Your task to perform on an android device: turn off data saver in the chrome app Image 0: 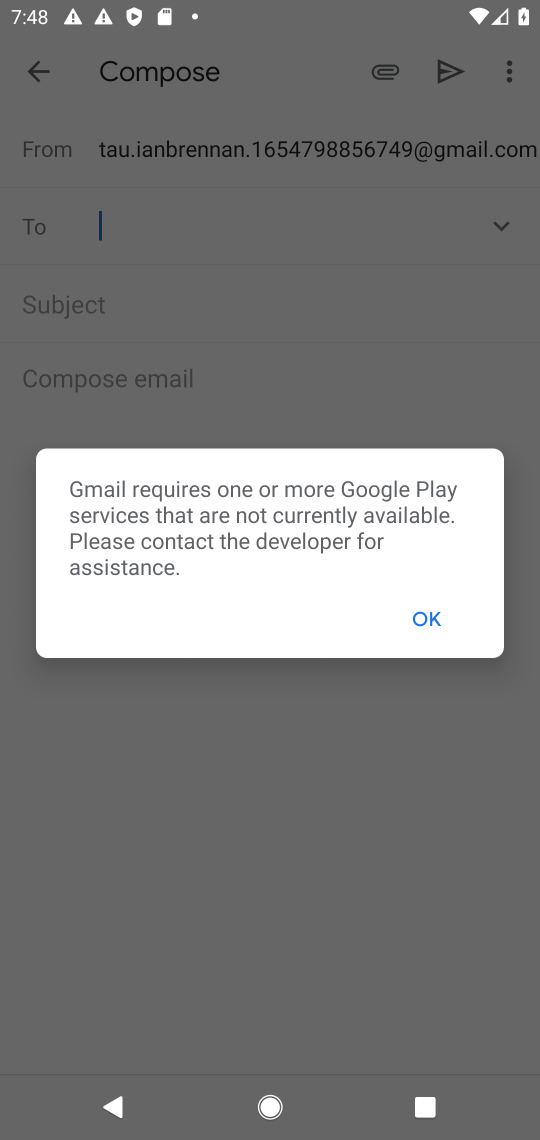
Step 0: press home button
Your task to perform on an android device: turn off data saver in the chrome app Image 1: 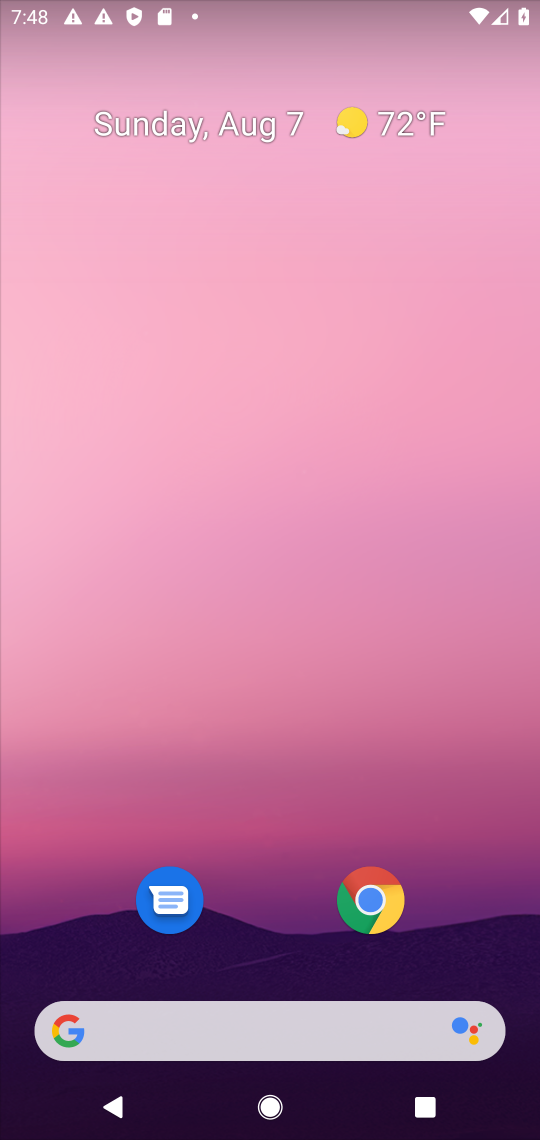
Step 1: click (377, 901)
Your task to perform on an android device: turn off data saver in the chrome app Image 2: 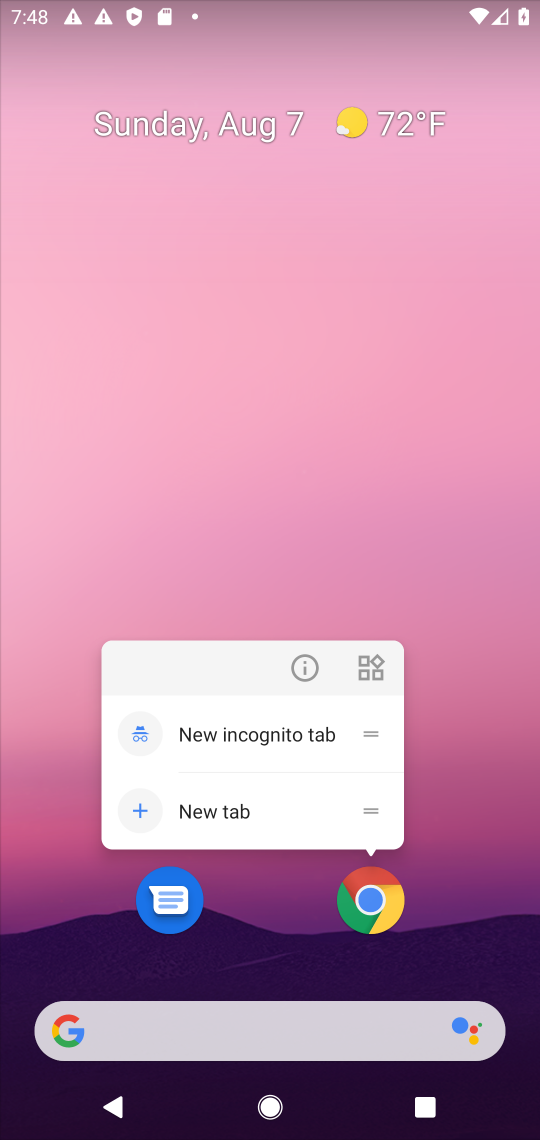
Step 2: click (370, 909)
Your task to perform on an android device: turn off data saver in the chrome app Image 3: 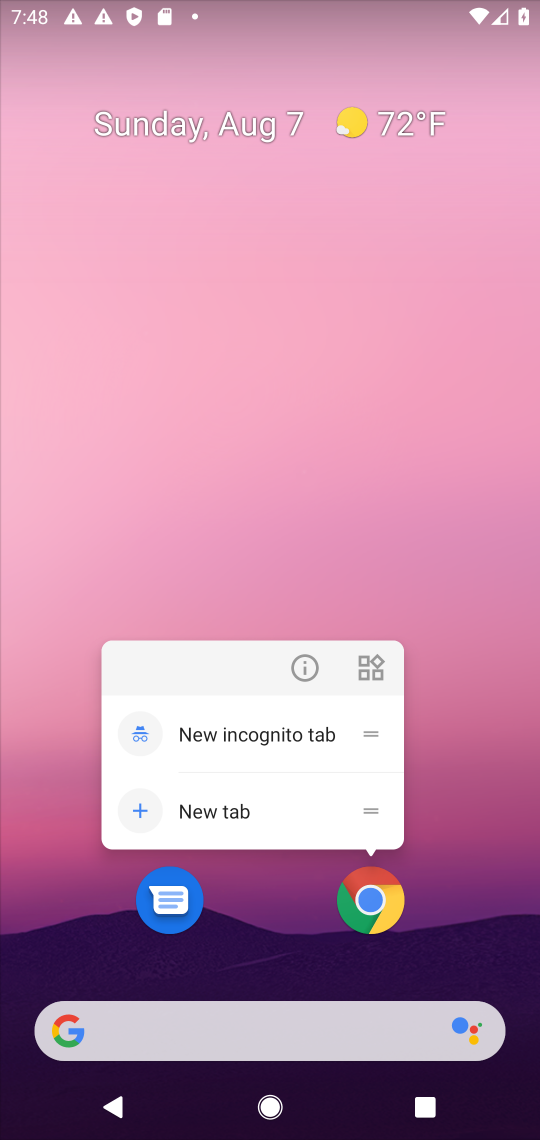
Step 3: click (370, 912)
Your task to perform on an android device: turn off data saver in the chrome app Image 4: 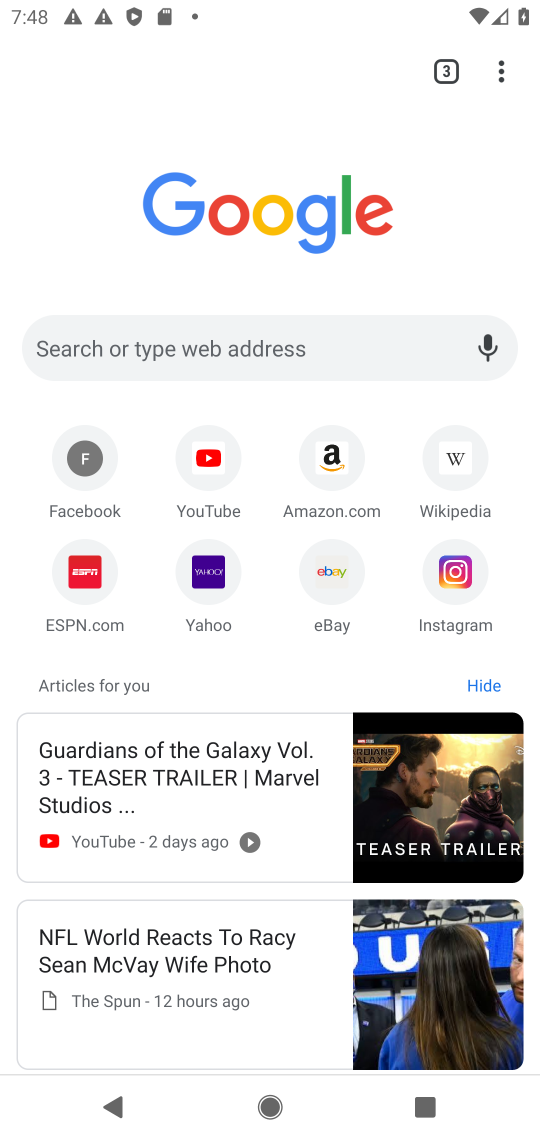
Step 4: drag from (504, 64) to (328, 595)
Your task to perform on an android device: turn off data saver in the chrome app Image 5: 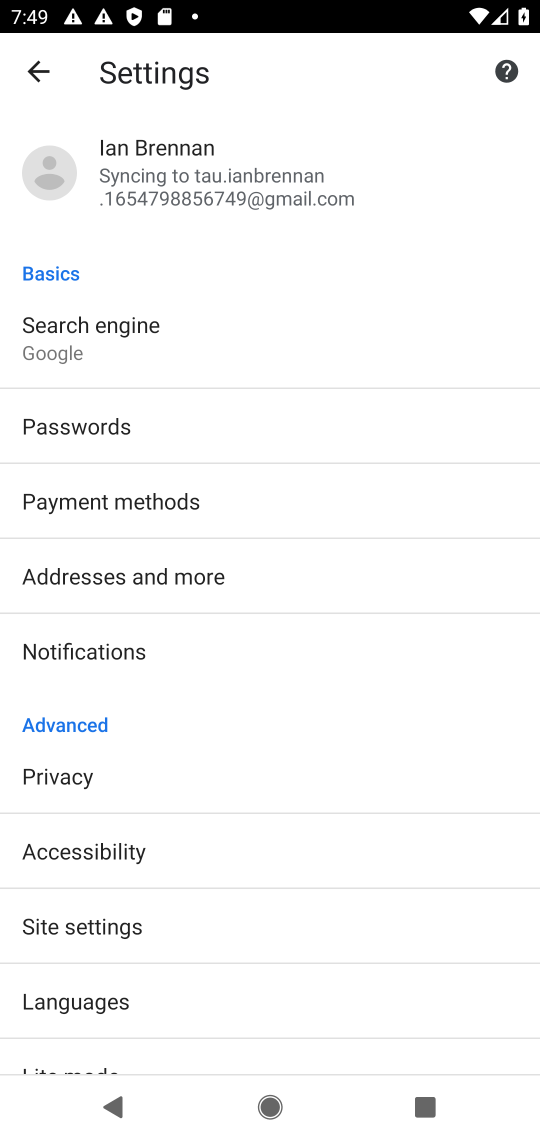
Step 5: drag from (230, 968) to (368, 176)
Your task to perform on an android device: turn off data saver in the chrome app Image 6: 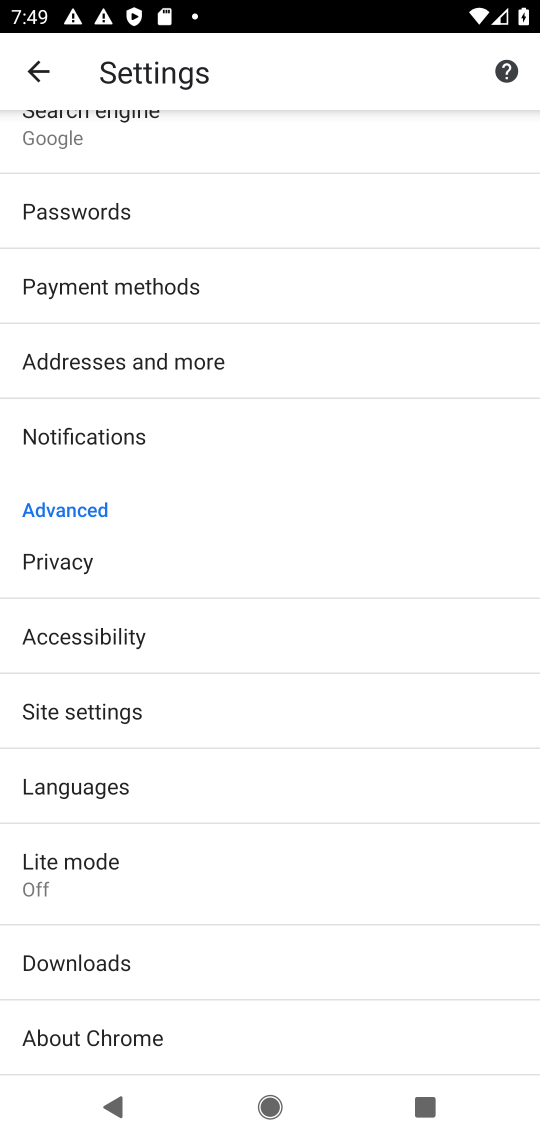
Step 6: click (126, 867)
Your task to perform on an android device: turn off data saver in the chrome app Image 7: 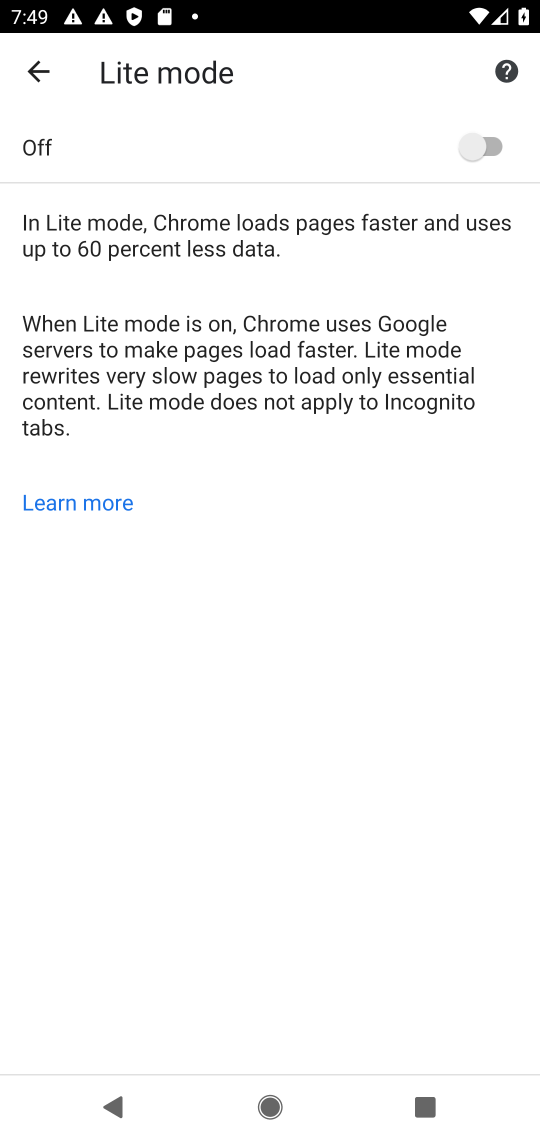
Step 7: task complete